Your task to perform on an android device: Do I have any events tomorrow? Image 0: 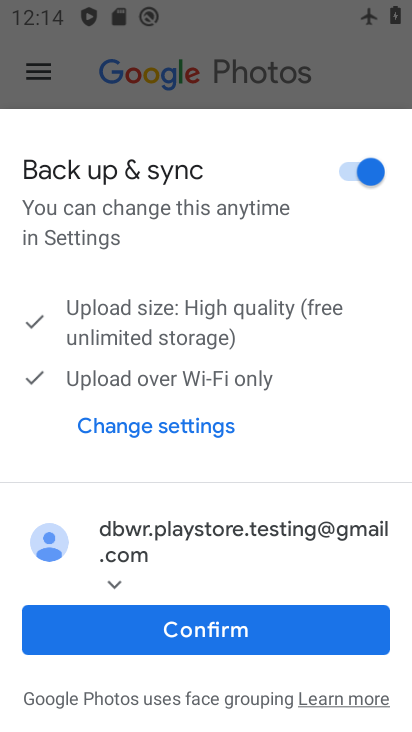
Step 0: press home button
Your task to perform on an android device: Do I have any events tomorrow? Image 1: 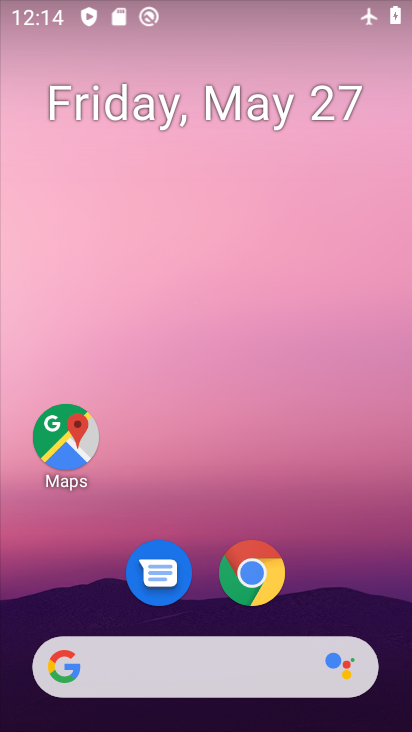
Step 1: drag from (331, 552) to (359, 139)
Your task to perform on an android device: Do I have any events tomorrow? Image 2: 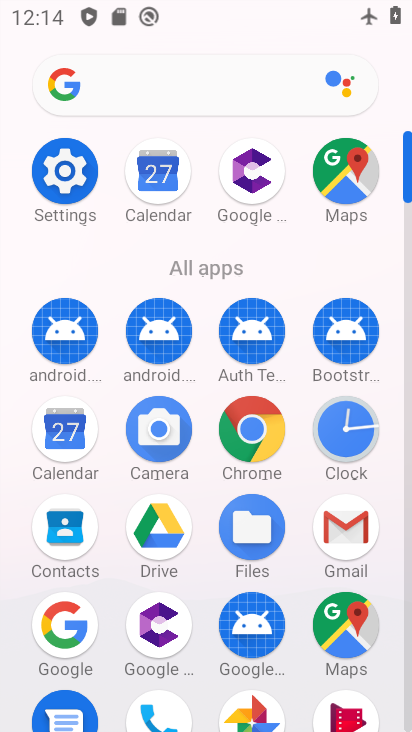
Step 2: click (68, 444)
Your task to perform on an android device: Do I have any events tomorrow? Image 3: 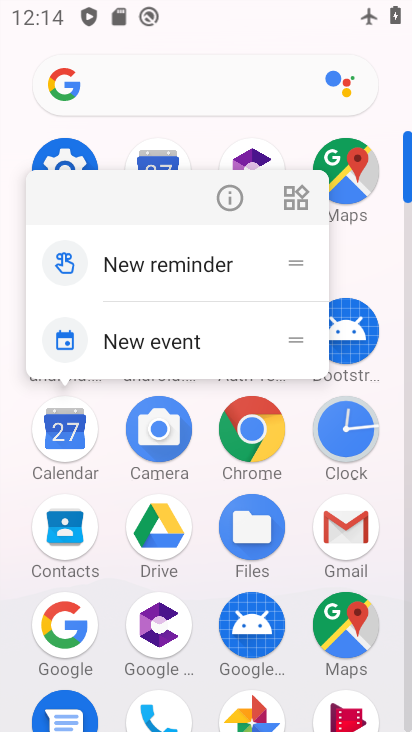
Step 3: click (68, 434)
Your task to perform on an android device: Do I have any events tomorrow? Image 4: 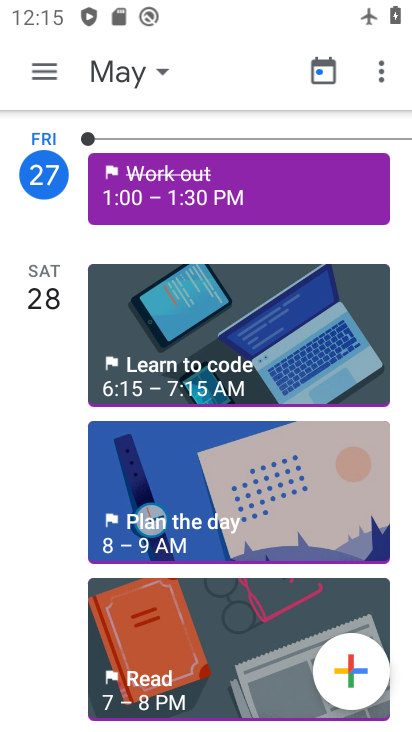
Step 4: task complete